Your task to perform on an android device: search for starred emails in the gmail app Image 0: 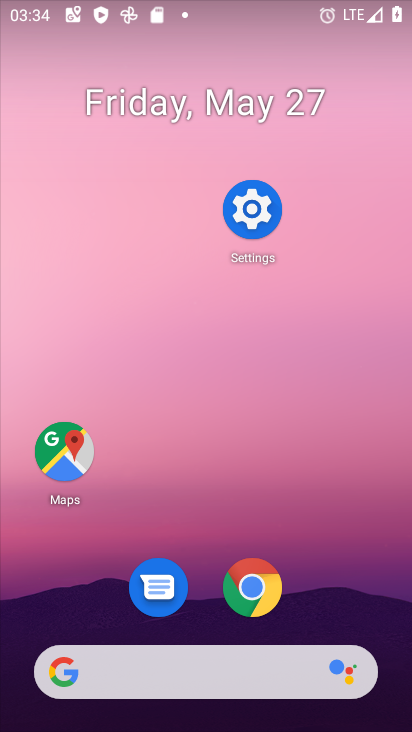
Step 0: drag from (353, 576) to (370, 112)
Your task to perform on an android device: search for starred emails in the gmail app Image 1: 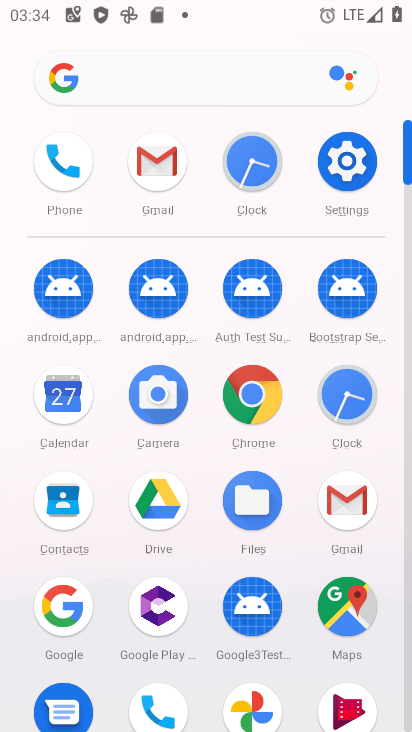
Step 1: click (150, 158)
Your task to perform on an android device: search for starred emails in the gmail app Image 2: 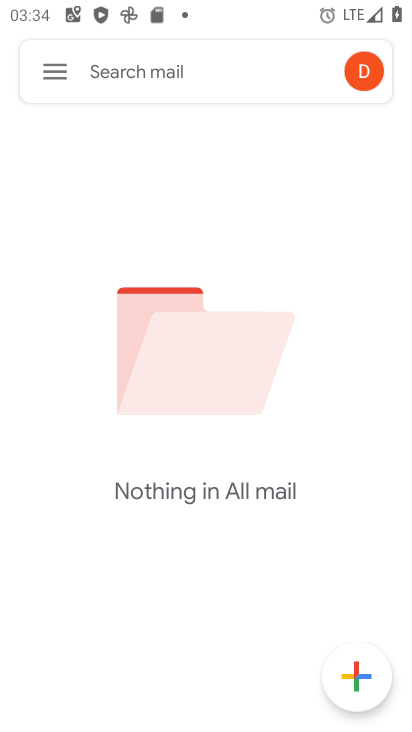
Step 2: click (58, 66)
Your task to perform on an android device: search for starred emails in the gmail app Image 3: 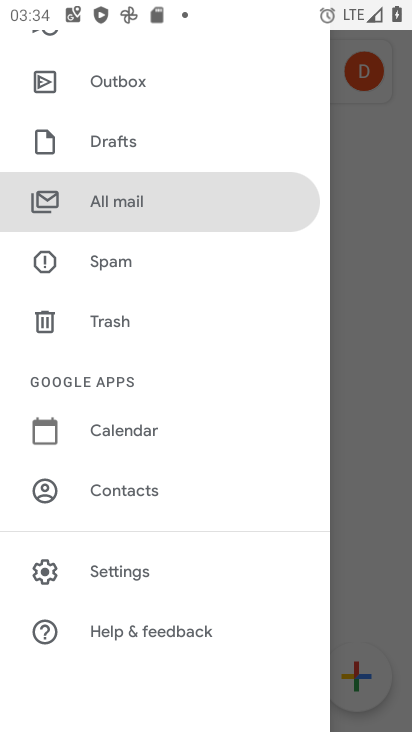
Step 3: drag from (235, 307) to (236, 597)
Your task to perform on an android device: search for starred emails in the gmail app Image 4: 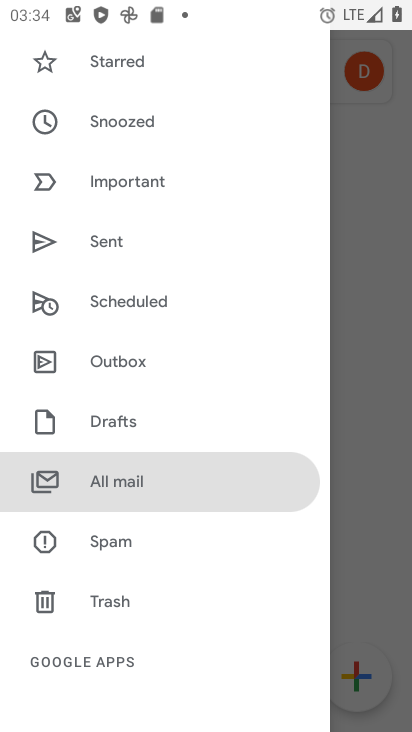
Step 4: click (113, 70)
Your task to perform on an android device: search for starred emails in the gmail app Image 5: 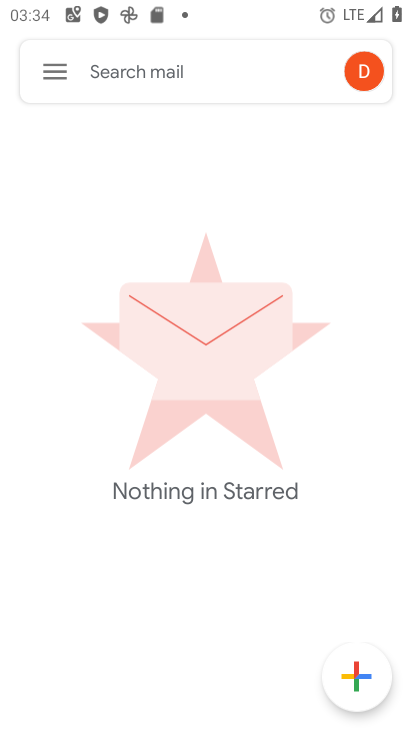
Step 5: task complete